Your task to perform on an android device: Go to Amazon Image 0: 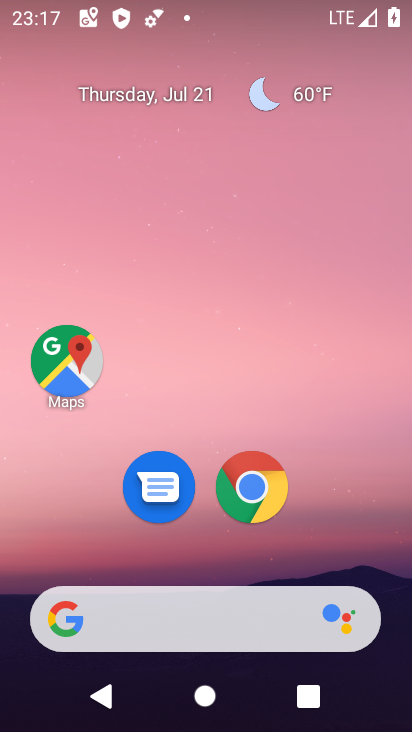
Step 0: click (232, 484)
Your task to perform on an android device: Go to Amazon Image 1: 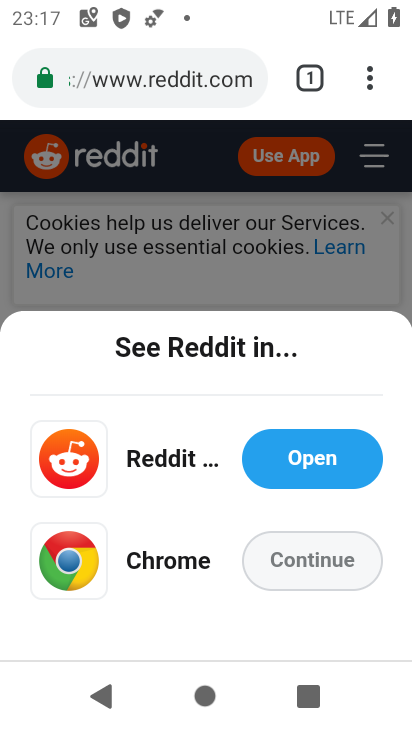
Step 1: click (371, 79)
Your task to perform on an android device: Go to Amazon Image 2: 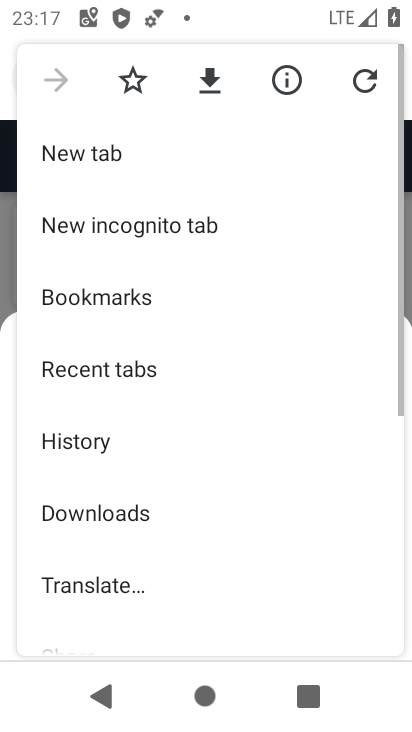
Step 2: click (110, 150)
Your task to perform on an android device: Go to Amazon Image 3: 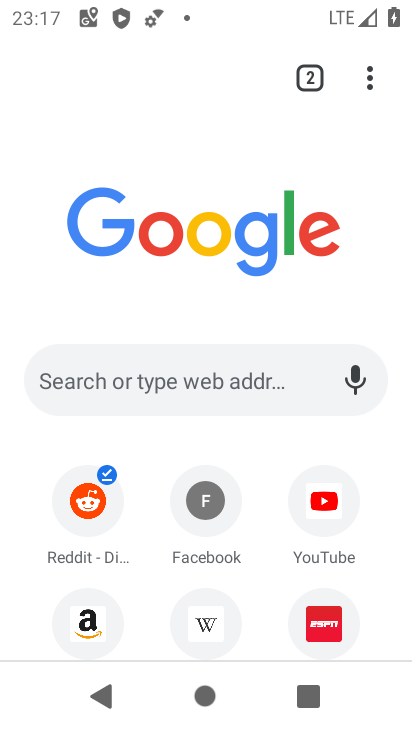
Step 3: click (78, 614)
Your task to perform on an android device: Go to Amazon Image 4: 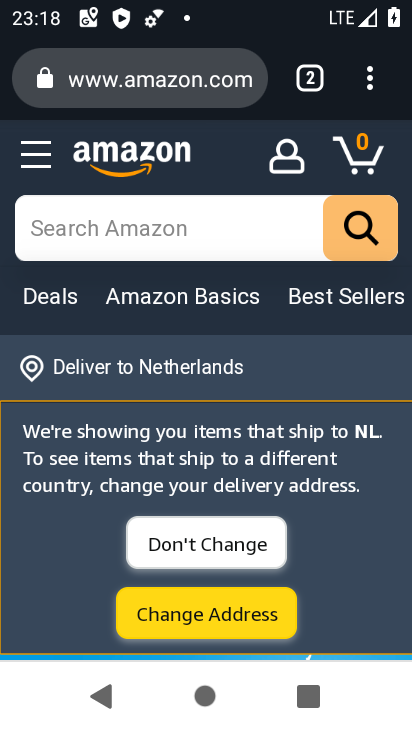
Step 4: task complete